Your task to perform on an android device: add a contact in the contacts app Image 0: 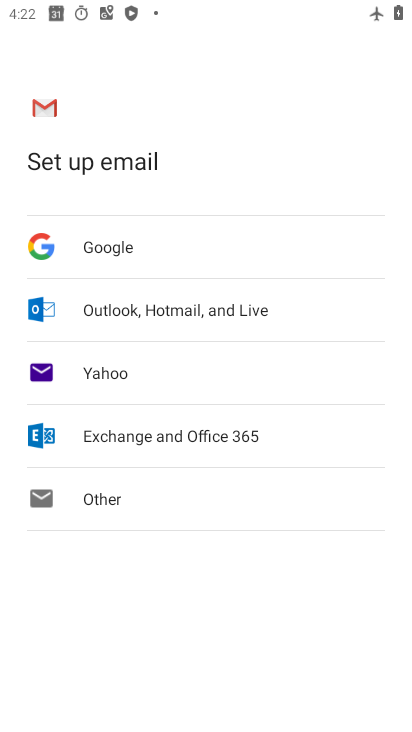
Step 0: press home button
Your task to perform on an android device: add a contact in the contacts app Image 1: 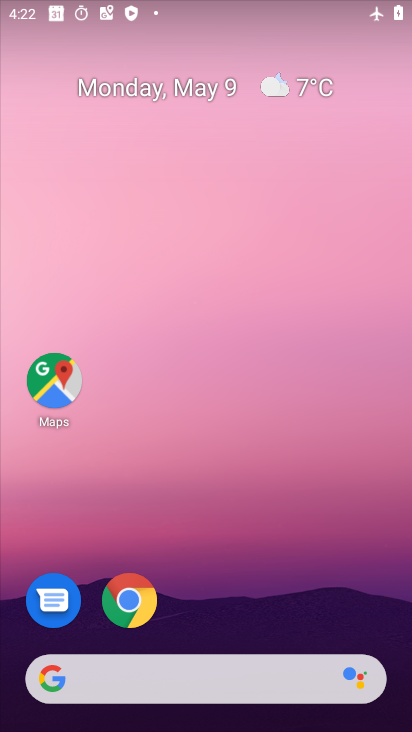
Step 1: drag from (263, 590) to (332, 26)
Your task to perform on an android device: add a contact in the contacts app Image 2: 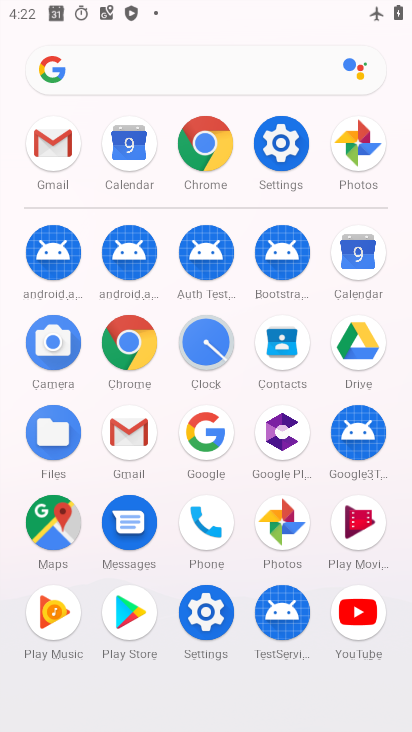
Step 2: click (289, 337)
Your task to perform on an android device: add a contact in the contacts app Image 3: 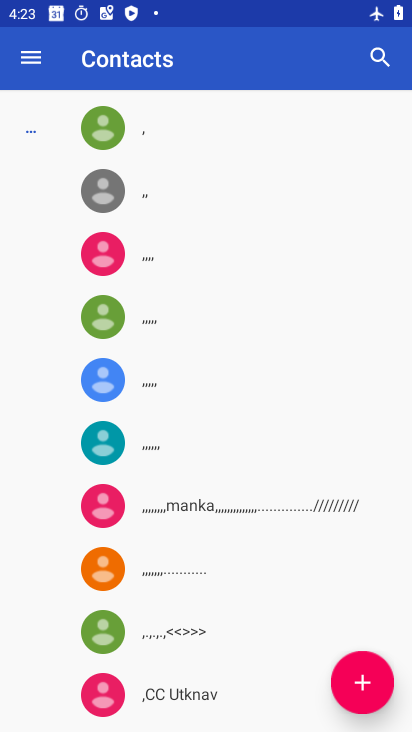
Step 3: click (363, 683)
Your task to perform on an android device: add a contact in the contacts app Image 4: 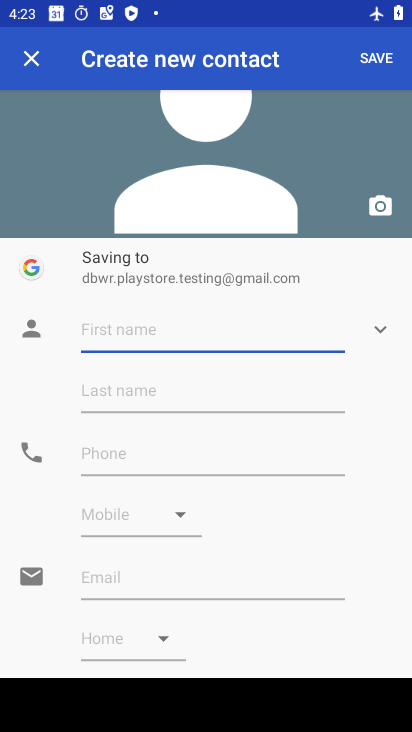
Step 4: click (192, 332)
Your task to perform on an android device: add a contact in the contacts app Image 5: 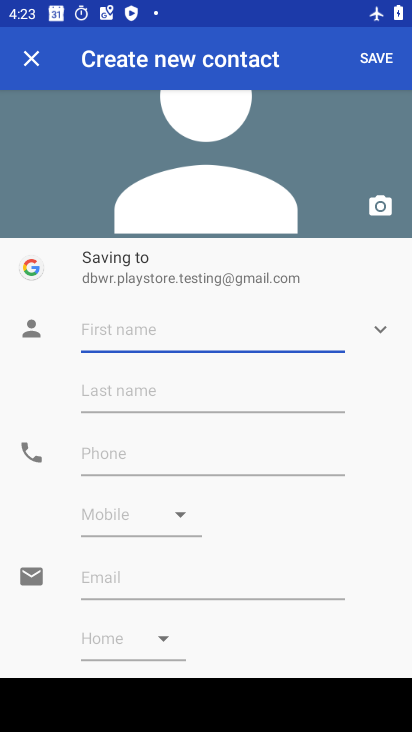
Step 5: type "grix"
Your task to perform on an android device: add a contact in the contacts app Image 6: 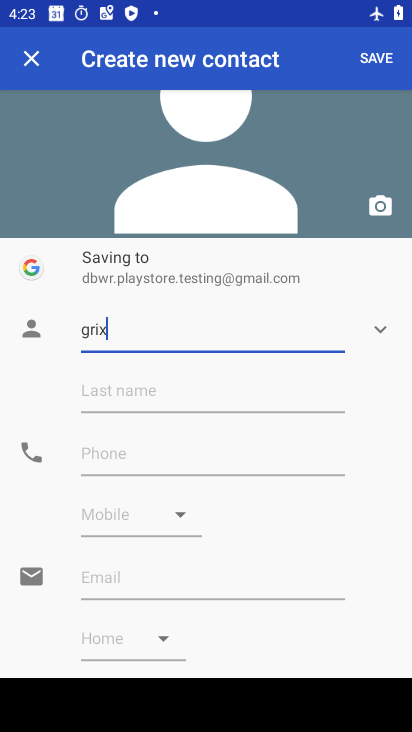
Step 6: type ""
Your task to perform on an android device: add a contact in the contacts app Image 7: 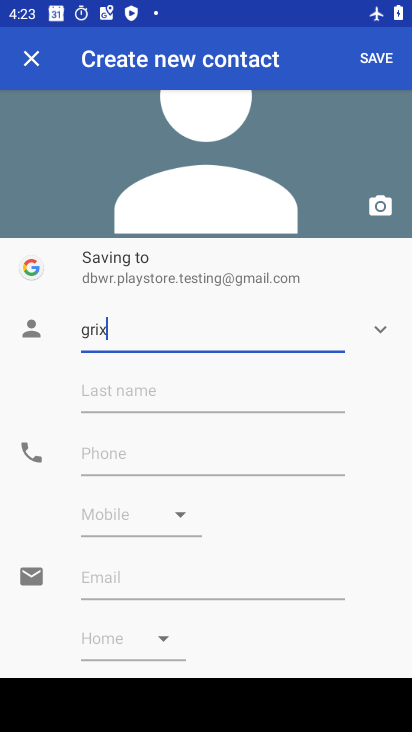
Step 7: click (380, 54)
Your task to perform on an android device: add a contact in the contacts app Image 8: 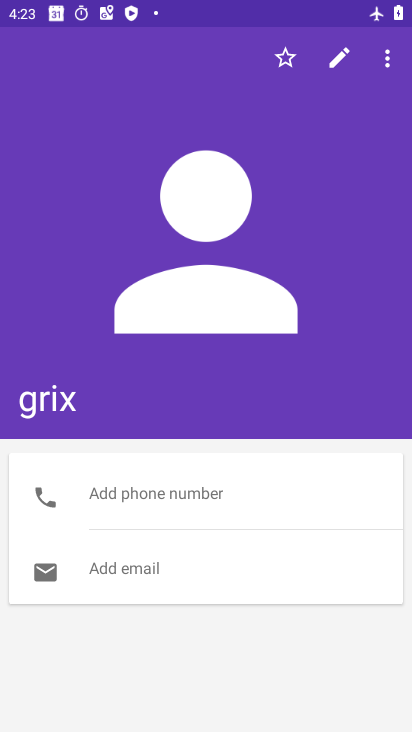
Step 8: task complete